Your task to perform on an android device: open a bookmark in the chrome app Image 0: 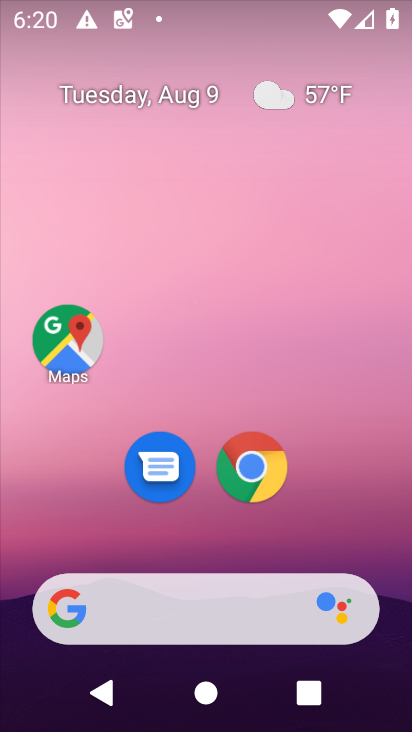
Step 0: click (248, 472)
Your task to perform on an android device: open a bookmark in the chrome app Image 1: 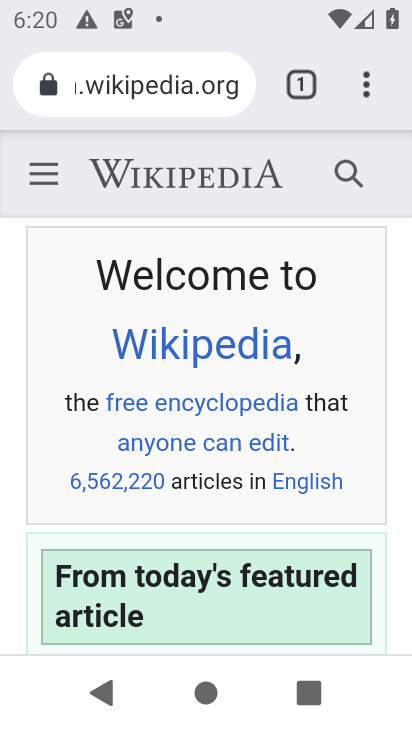
Step 1: click (370, 89)
Your task to perform on an android device: open a bookmark in the chrome app Image 2: 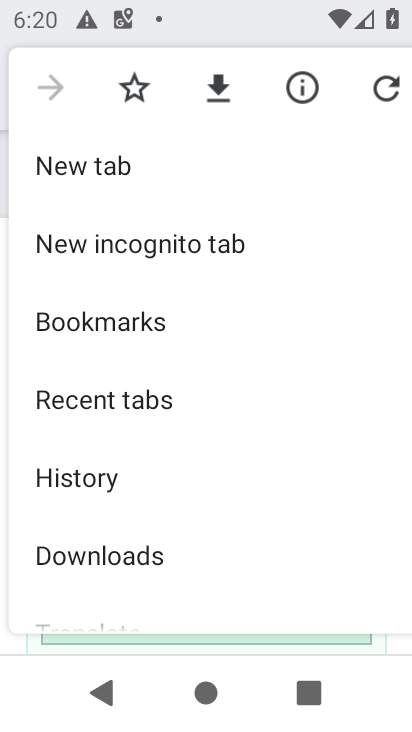
Step 2: click (107, 323)
Your task to perform on an android device: open a bookmark in the chrome app Image 3: 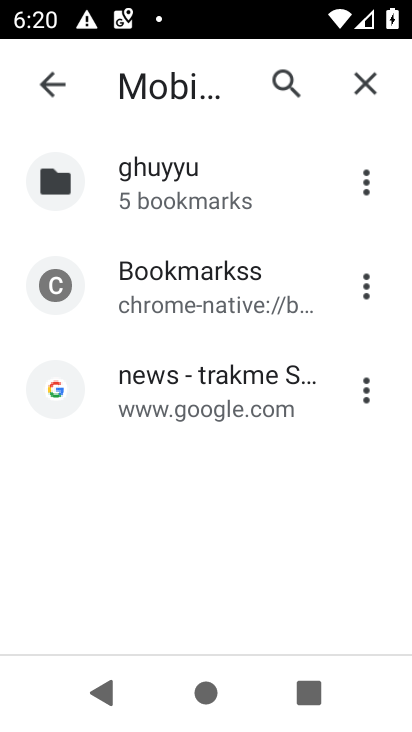
Step 3: click (177, 193)
Your task to perform on an android device: open a bookmark in the chrome app Image 4: 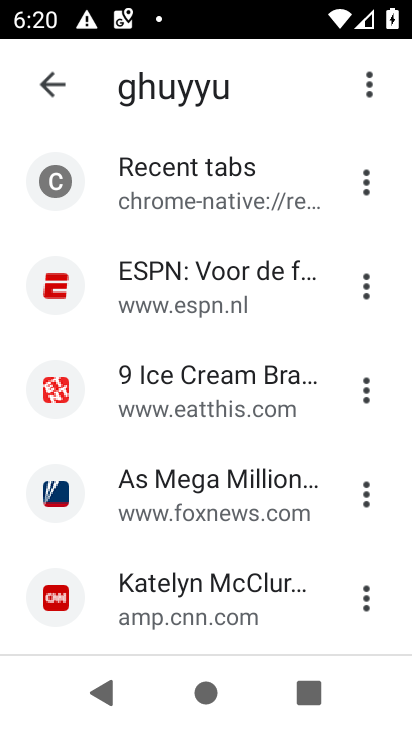
Step 4: click (164, 262)
Your task to perform on an android device: open a bookmark in the chrome app Image 5: 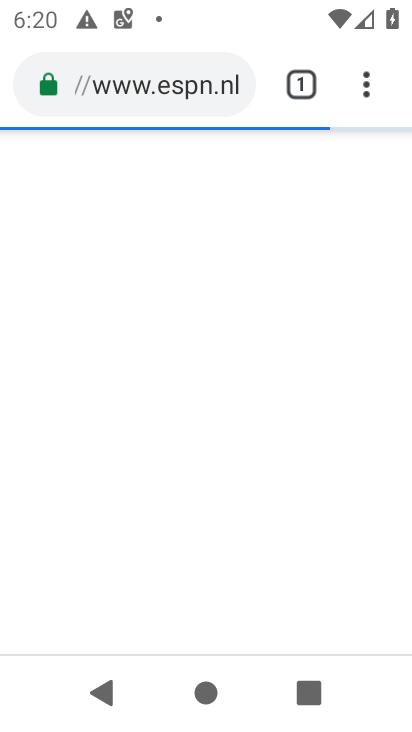
Step 5: task complete